Your task to perform on an android device: set the stopwatch Image 0: 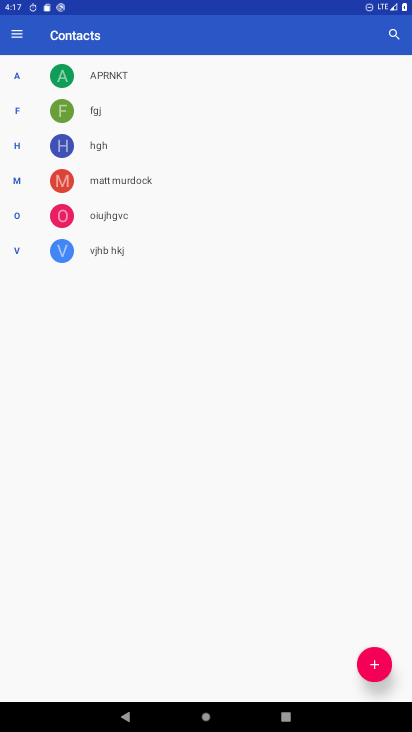
Step 0: press home button
Your task to perform on an android device: set the stopwatch Image 1: 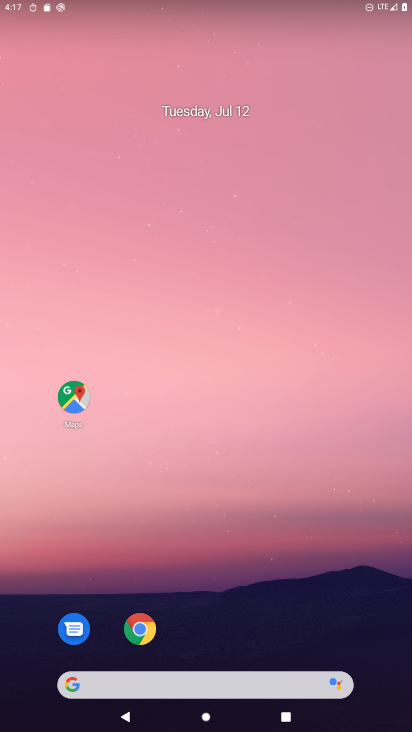
Step 1: click (333, 445)
Your task to perform on an android device: set the stopwatch Image 2: 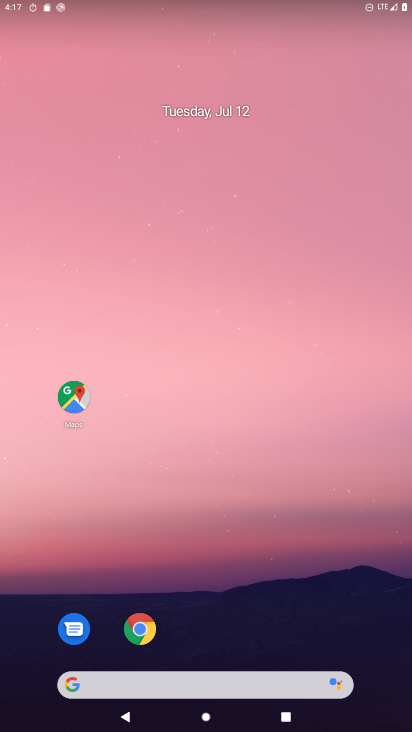
Step 2: click (231, 85)
Your task to perform on an android device: set the stopwatch Image 3: 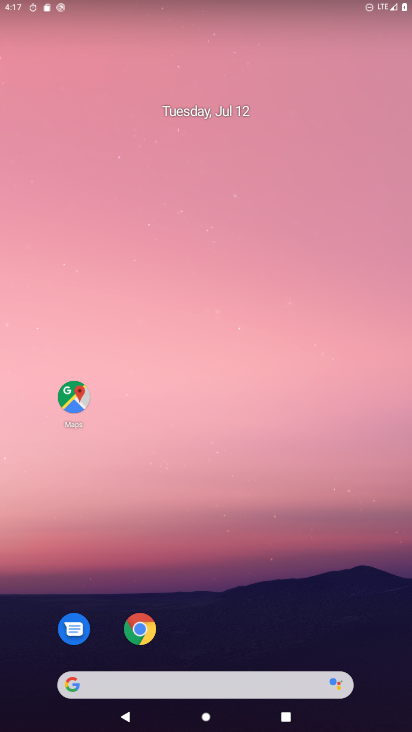
Step 3: drag from (188, 626) to (191, 16)
Your task to perform on an android device: set the stopwatch Image 4: 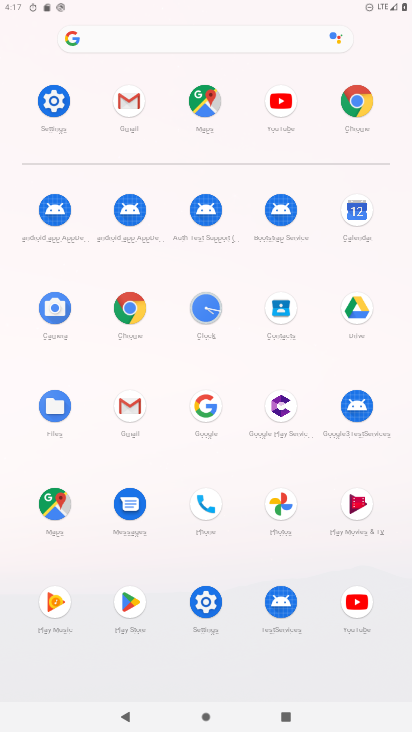
Step 4: click (212, 293)
Your task to perform on an android device: set the stopwatch Image 5: 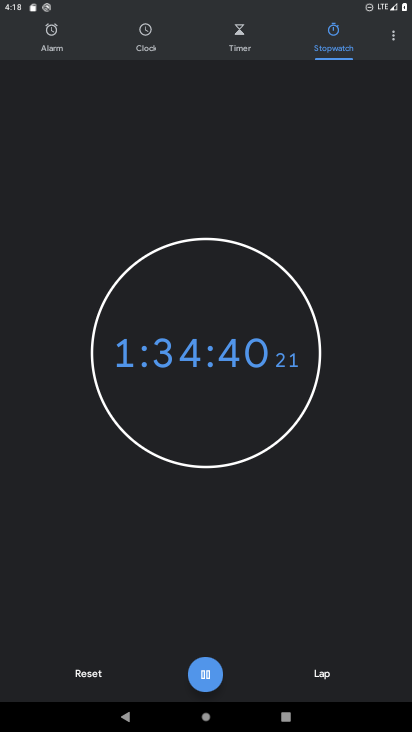
Step 5: task complete